Your task to perform on an android device: toggle javascript in the chrome app Image 0: 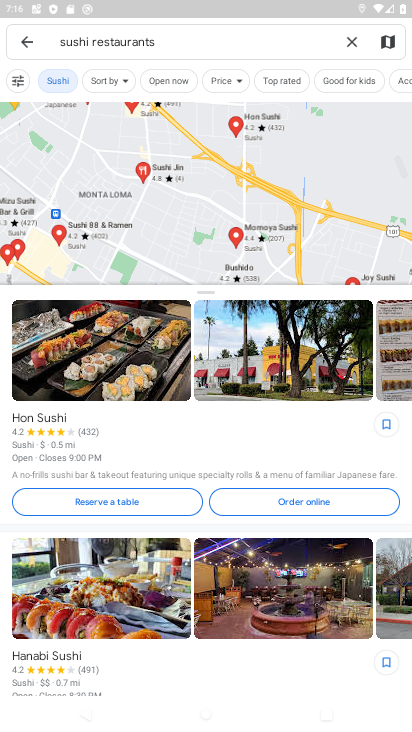
Step 0: press home button
Your task to perform on an android device: toggle javascript in the chrome app Image 1: 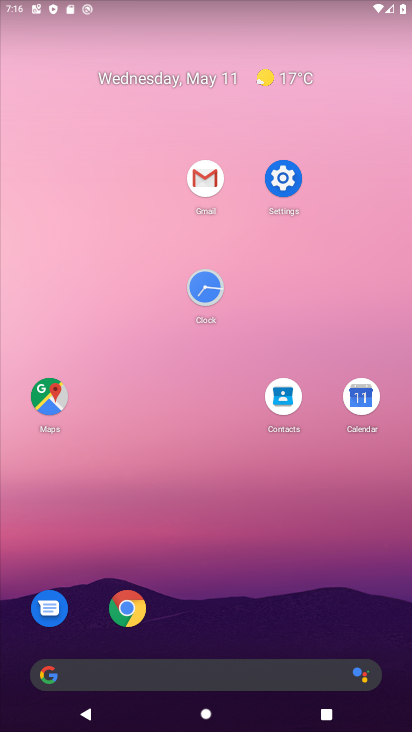
Step 1: click (138, 606)
Your task to perform on an android device: toggle javascript in the chrome app Image 2: 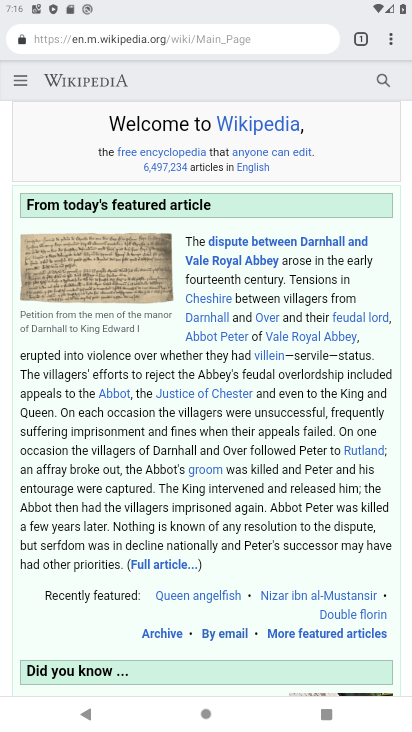
Step 2: click (396, 37)
Your task to perform on an android device: toggle javascript in the chrome app Image 3: 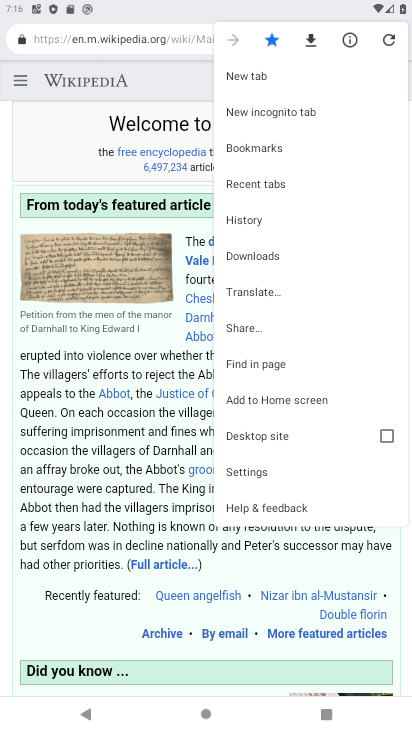
Step 3: click (278, 471)
Your task to perform on an android device: toggle javascript in the chrome app Image 4: 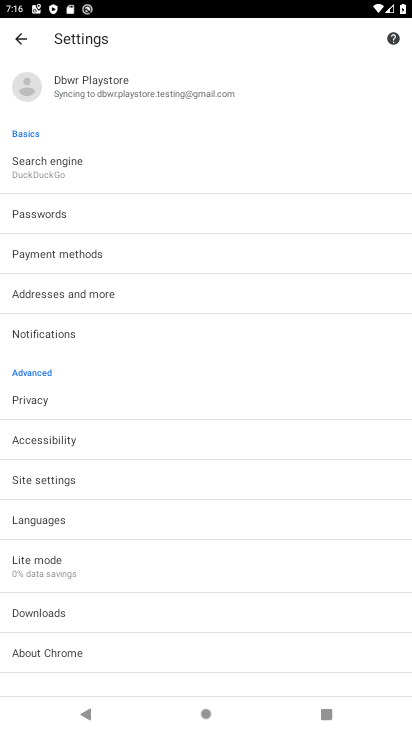
Step 4: click (167, 485)
Your task to perform on an android device: toggle javascript in the chrome app Image 5: 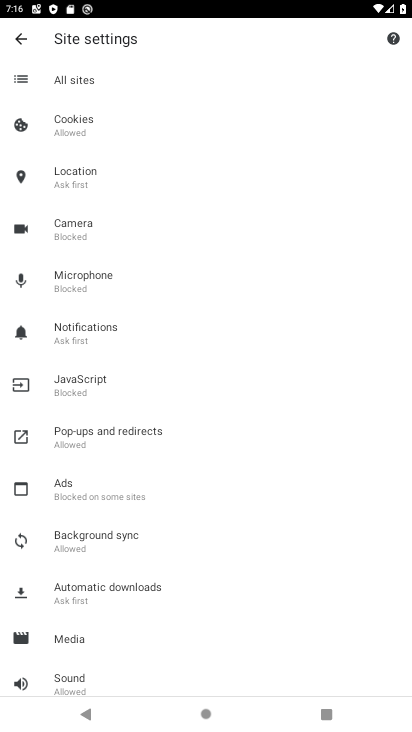
Step 5: click (126, 380)
Your task to perform on an android device: toggle javascript in the chrome app Image 6: 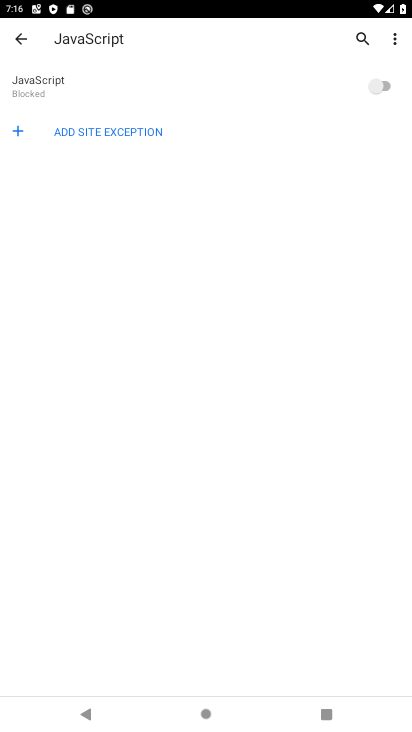
Step 6: click (377, 91)
Your task to perform on an android device: toggle javascript in the chrome app Image 7: 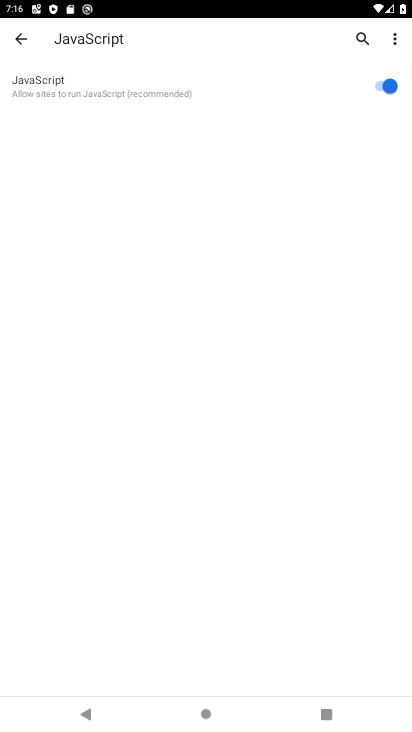
Step 7: task complete